Your task to perform on an android device: Open Reddit.com Image 0: 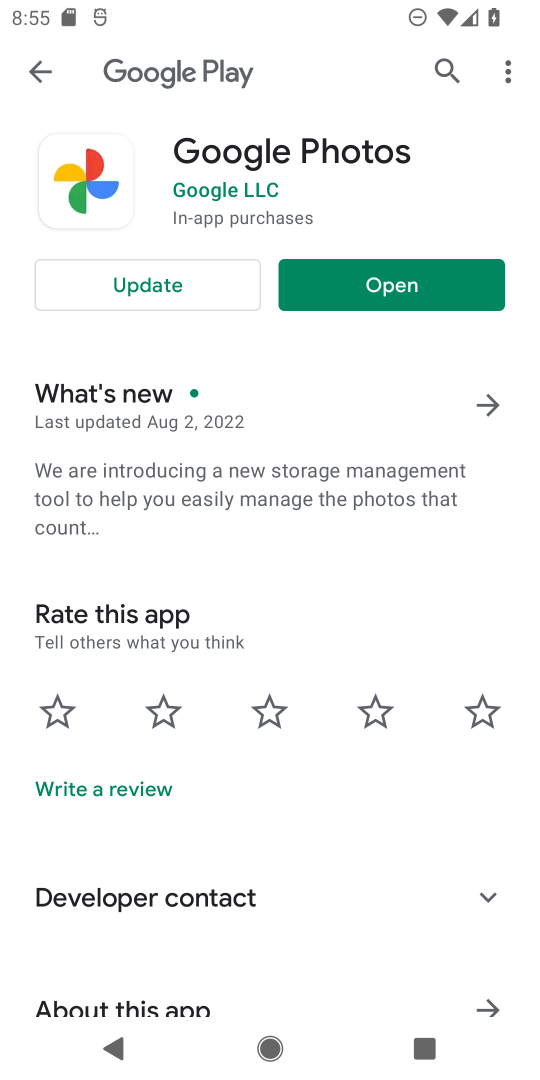
Step 0: press home button
Your task to perform on an android device: Open Reddit.com Image 1: 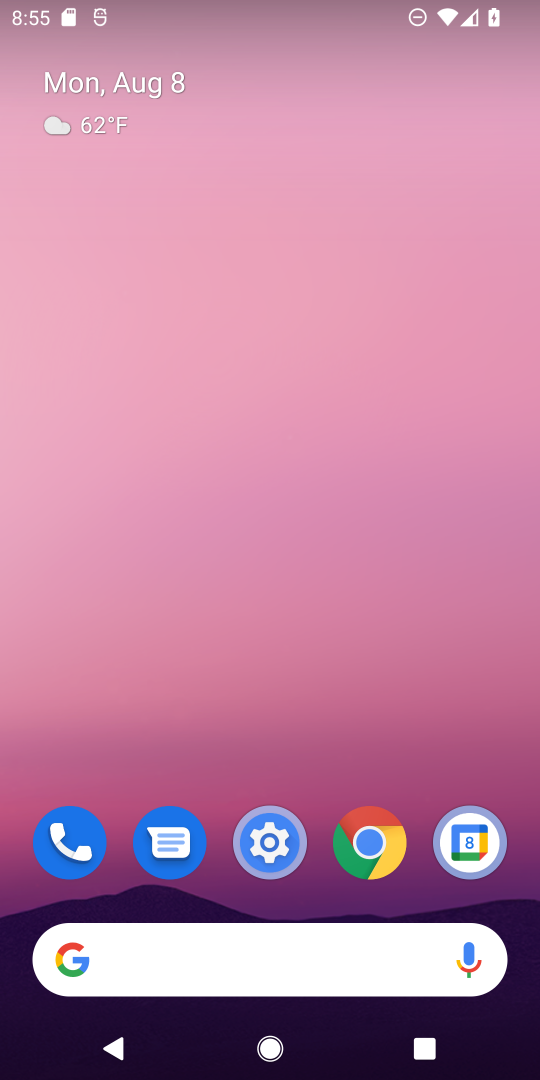
Step 1: click (315, 953)
Your task to perform on an android device: Open Reddit.com Image 2: 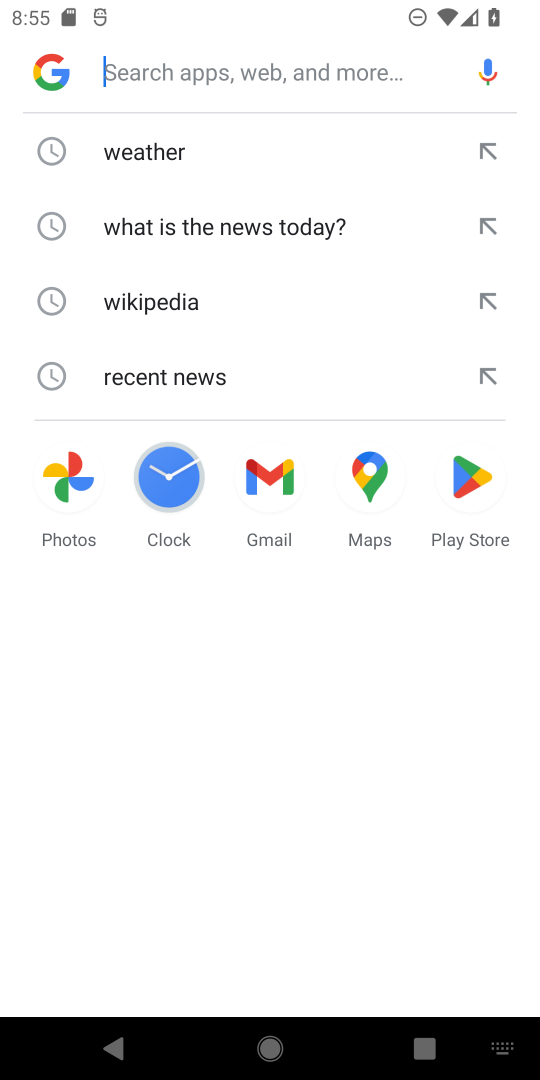
Step 2: type "reddit.com"
Your task to perform on an android device: Open Reddit.com Image 3: 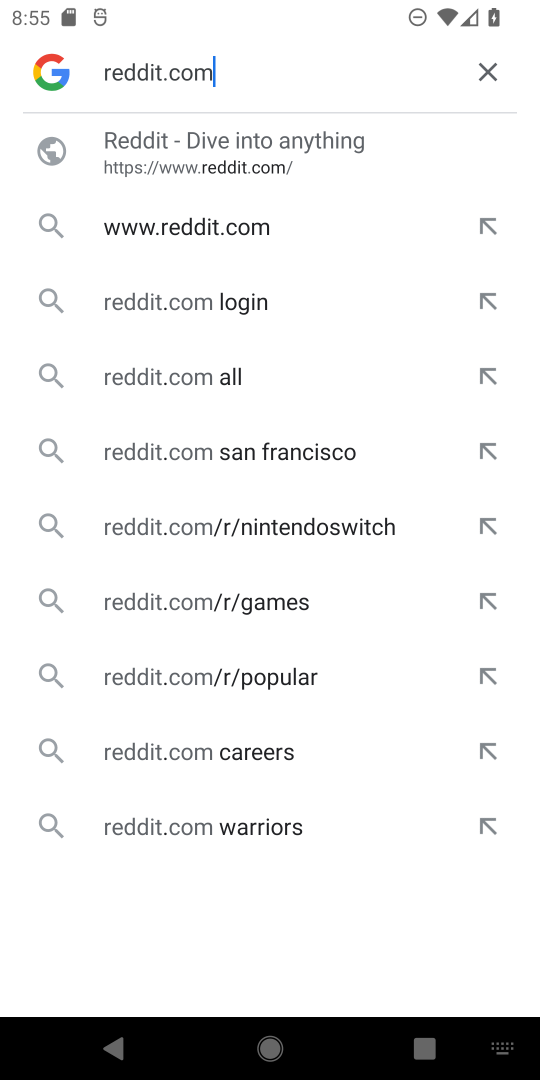
Step 3: click (282, 150)
Your task to perform on an android device: Open Reddit.com Image 4: 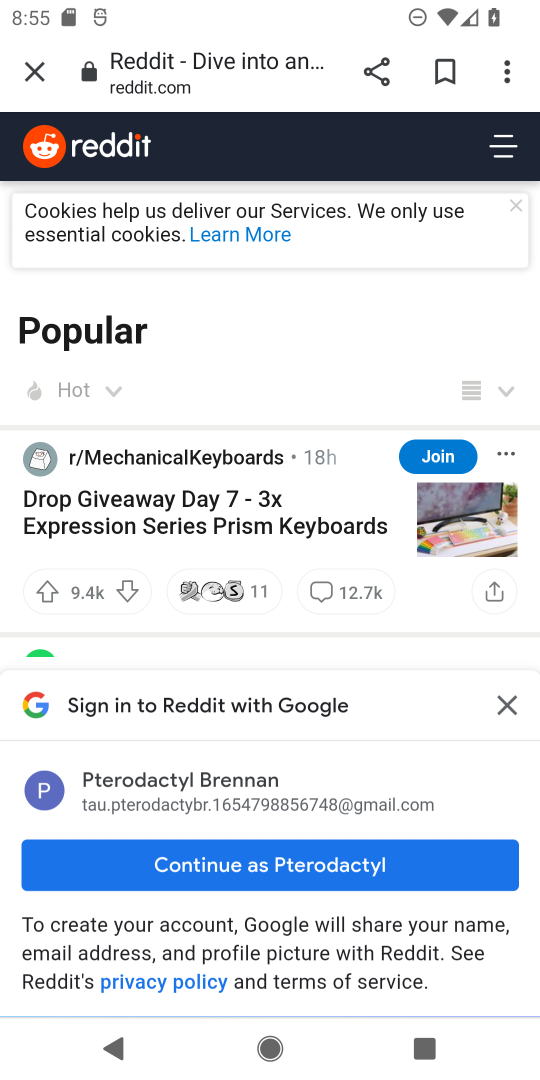
Step 4: task complete